Your task to perform on an android device: snooze an email in the gmail app Image 0: 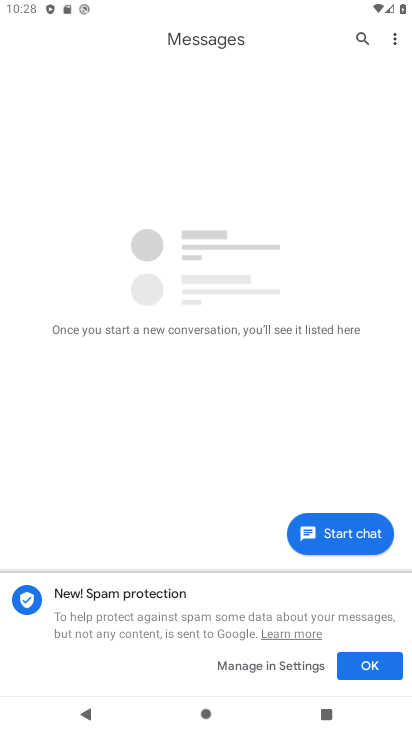
Step 0: press home button
Your task to perform on an android device: snooze an email in the gmail app Image 1: 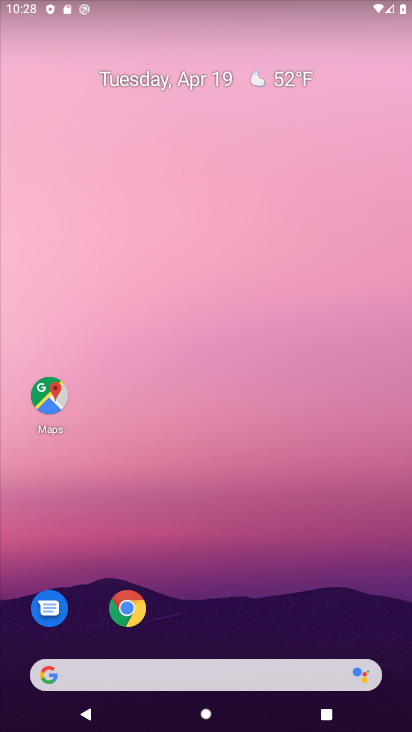
Step 1: drag from (319, 618) to (228, 208)
Your task to perform on an android device: snooze an email in the gmail app Image 2: 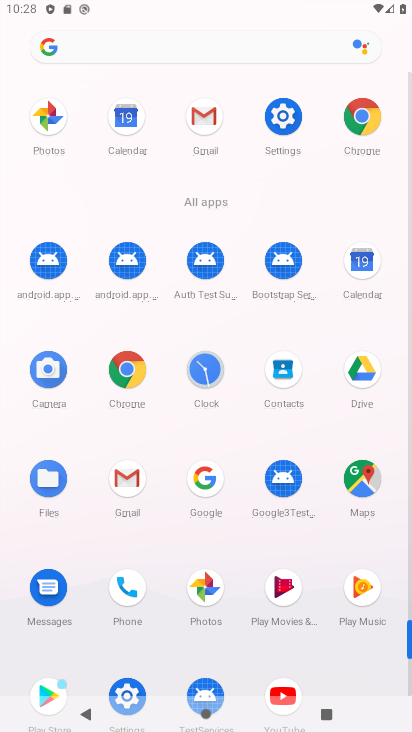
Step 2: click (200, 125)
Your task to perform on an android device: snooze an email in the gmail app Image 3: 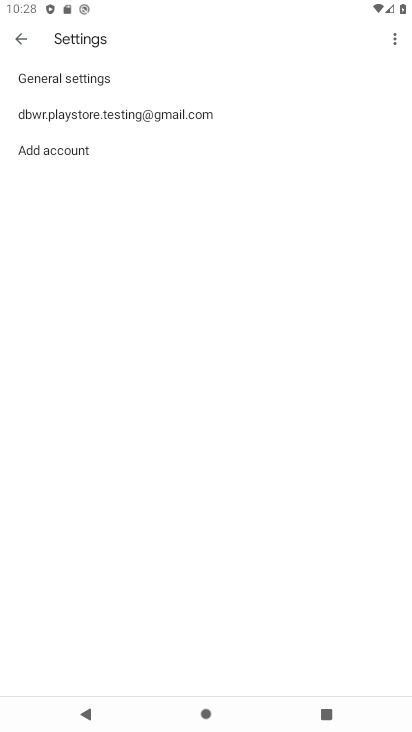
Step 3: press back button
Your task to perform on an android device: snooze an email in the gmail app Image 4: 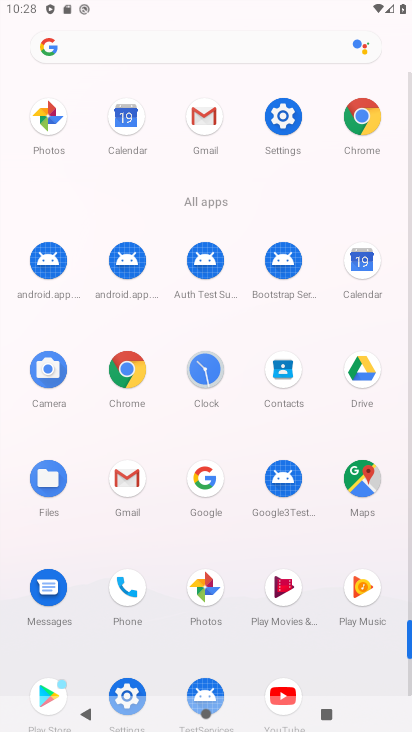
Step 4: click (212, 120)
Your task to perform on an android device: snooze an email in the gmail app Image 5: 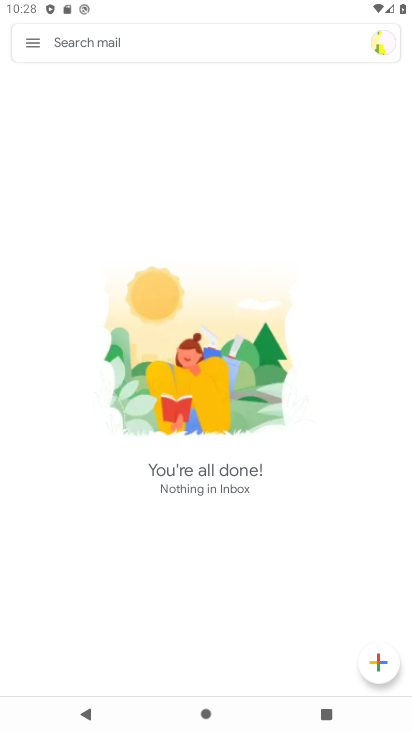
Step 5: click (21, 47)
Your task to perform on an android device: snooze an email in the gmail app Image 6: 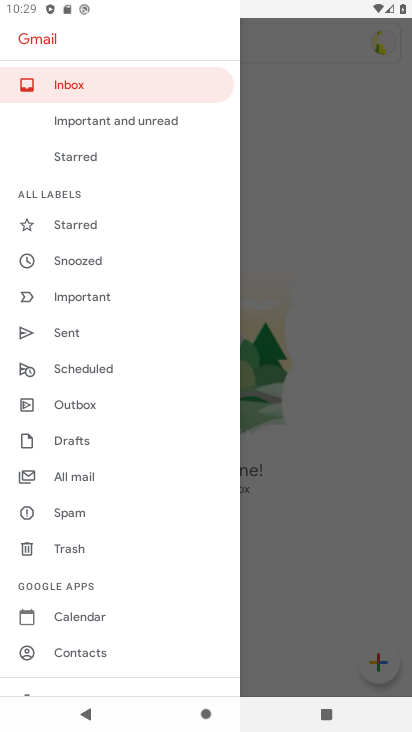
Step 6: click (105, 472)
Your task to perform on an android device: snooze an email in the gmail app Image 7: 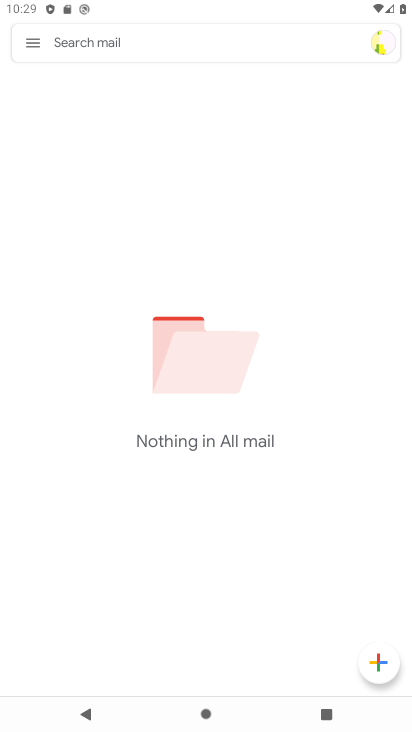
Step 7: task complete